Your task to perform on an android device: open app "Skype" (install if not already installed) Image 0: 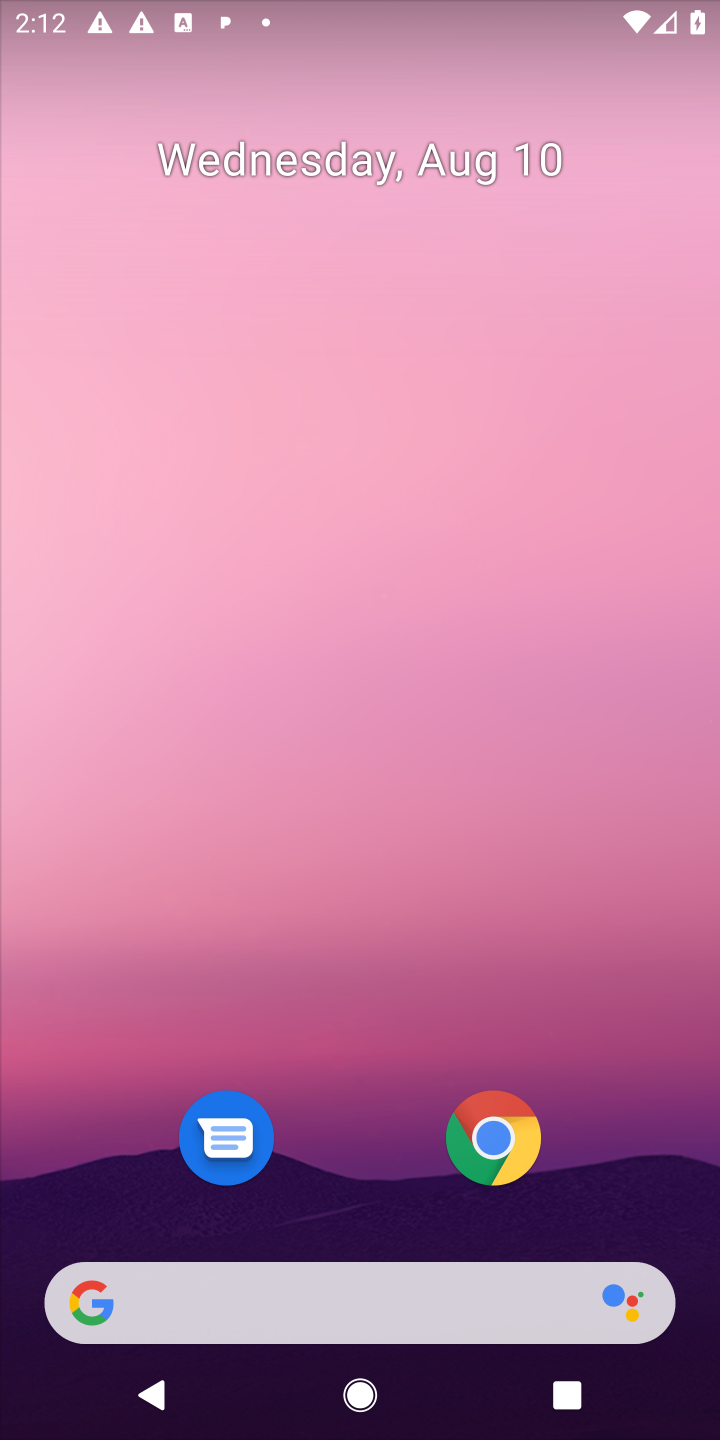
Step 0: press home button
Your task to perform on an android device: open app "Skype" (install if not already installed) Image 1: 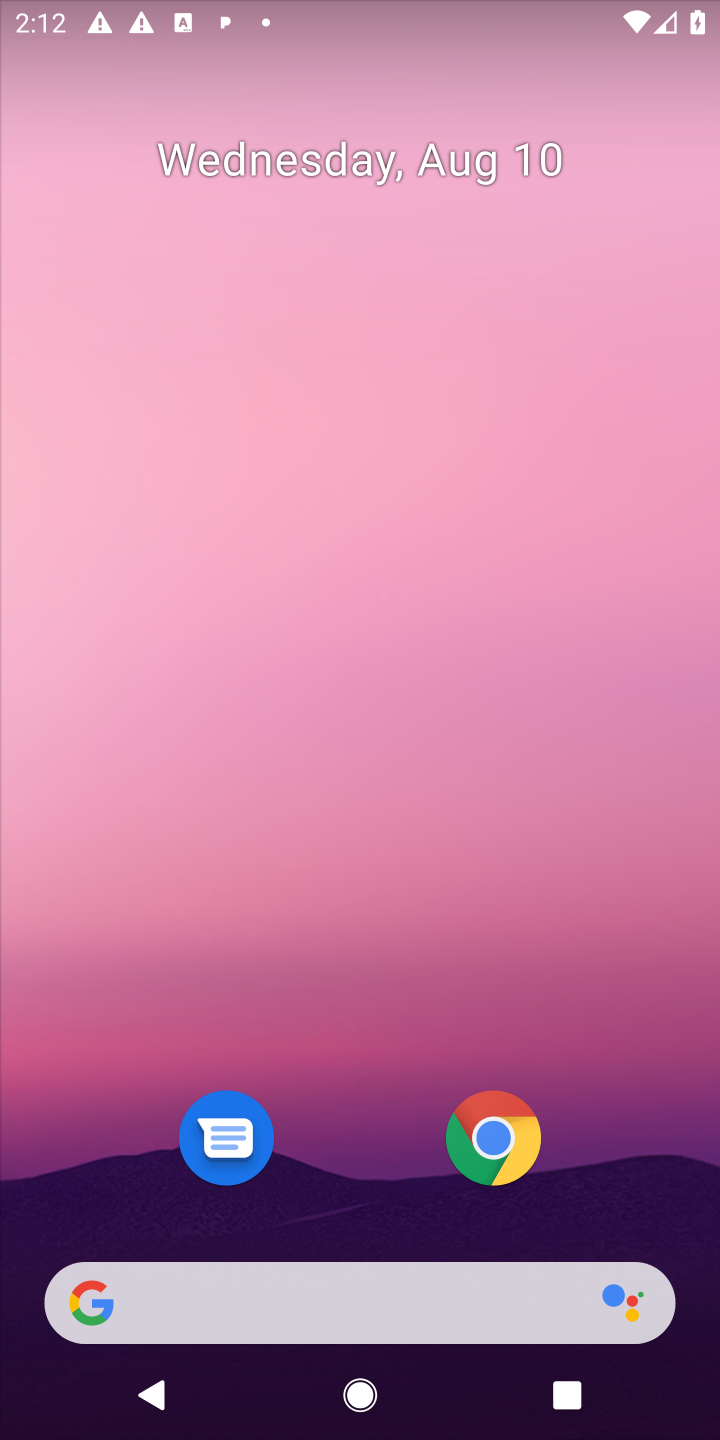
Step 1: drag from (606, 1184) to (645, 91)
Your task to perform on an android device: open app "Skype" (install if not already installed) Image 2: 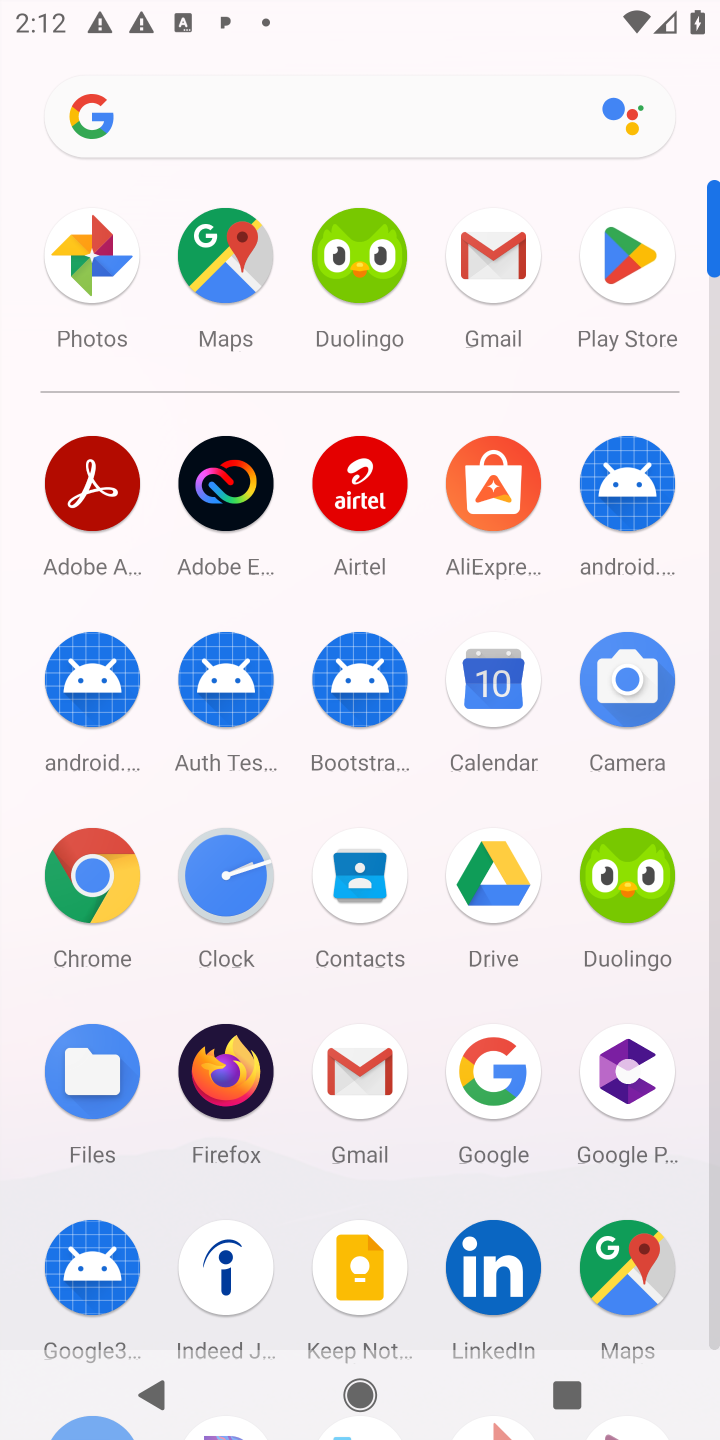
Step 2: click (612, 243)
Your task to perform on an android device: open app "Skype" (install if not already installed) Image 3: 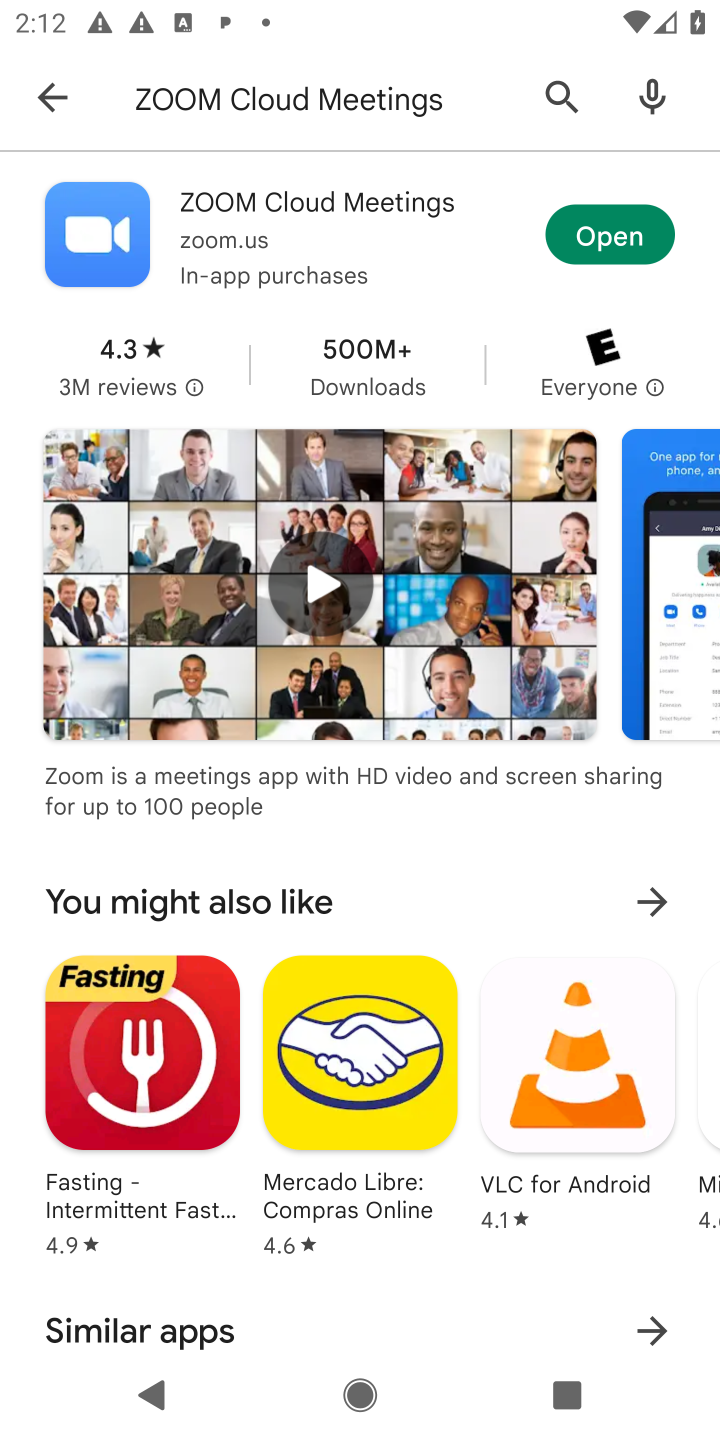
Step 3: click (553, 87)
Your task to perform on an android device: open app "Skype" (install if not already installed) Image 4: 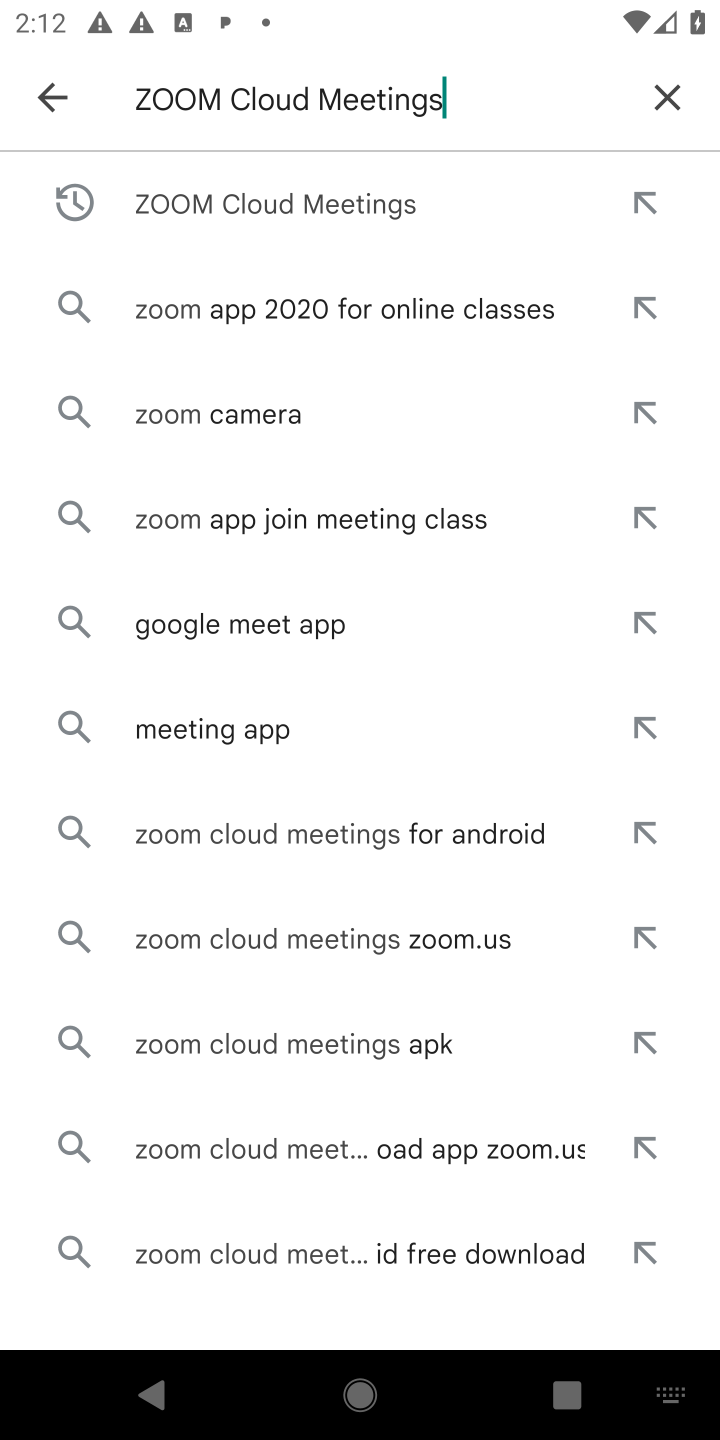
Step 4: click (662, 84)
Your task to perform on an android device: open app "Skype" (install if not already installed) Image 5: 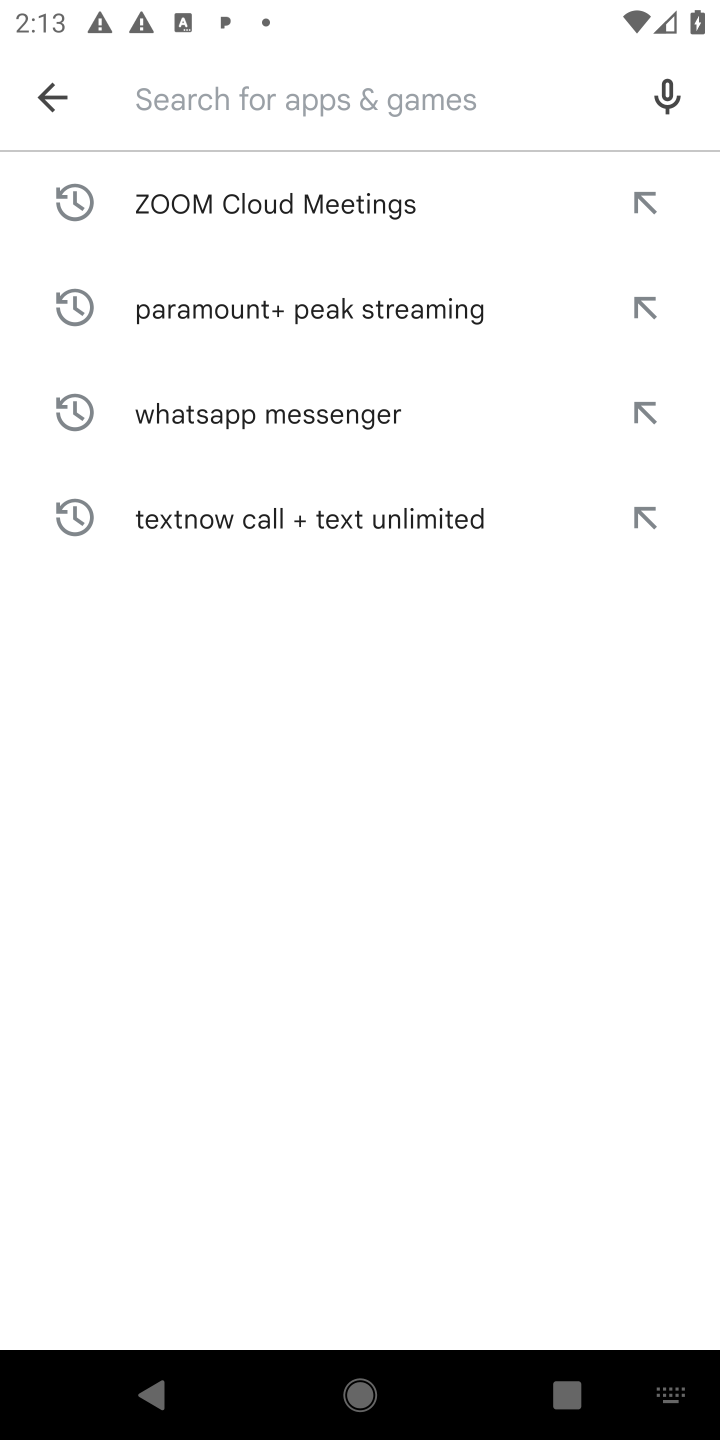
Step 5: type "skype"
Your task to perform on an android device: open app "Skype" (install if not already installed) Image 6: 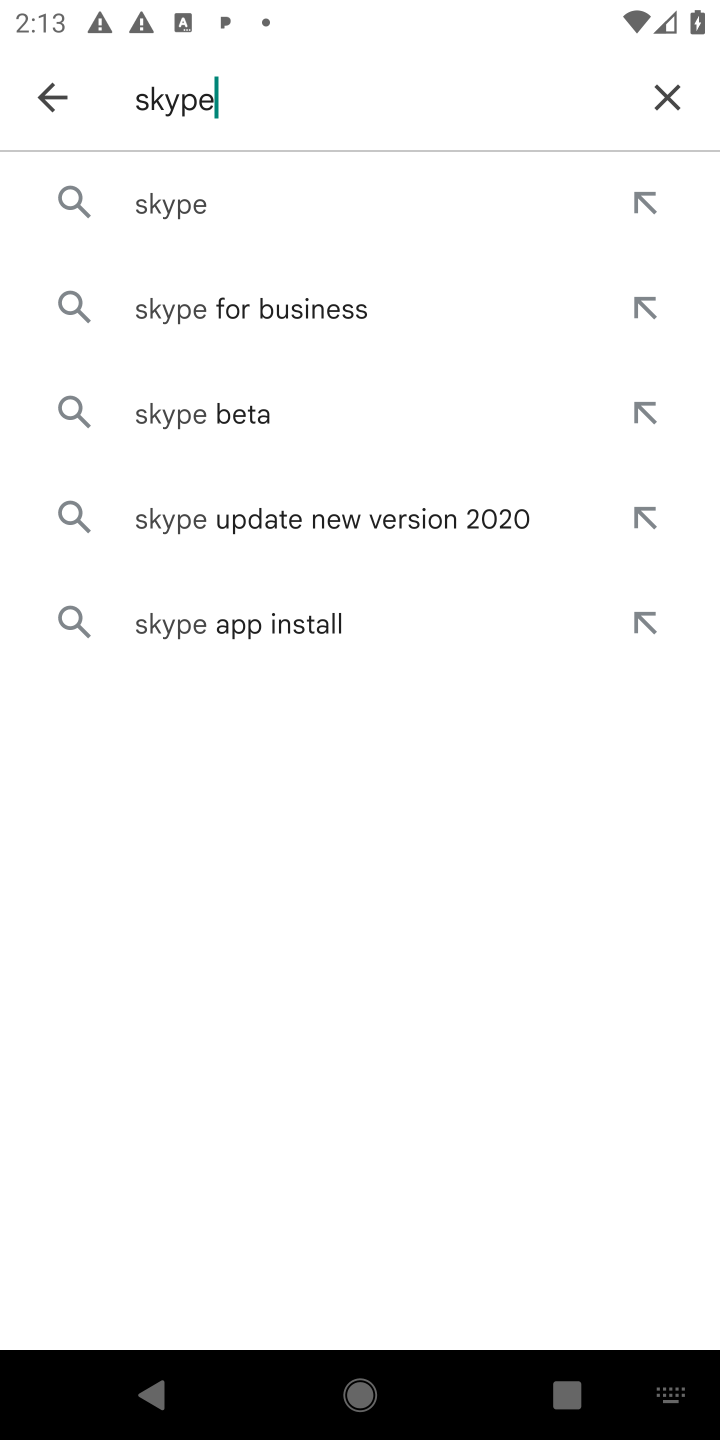
Step 6: press enter
Your task to perform on an android device: open app "Skype" (install if not already installed) Image 7: 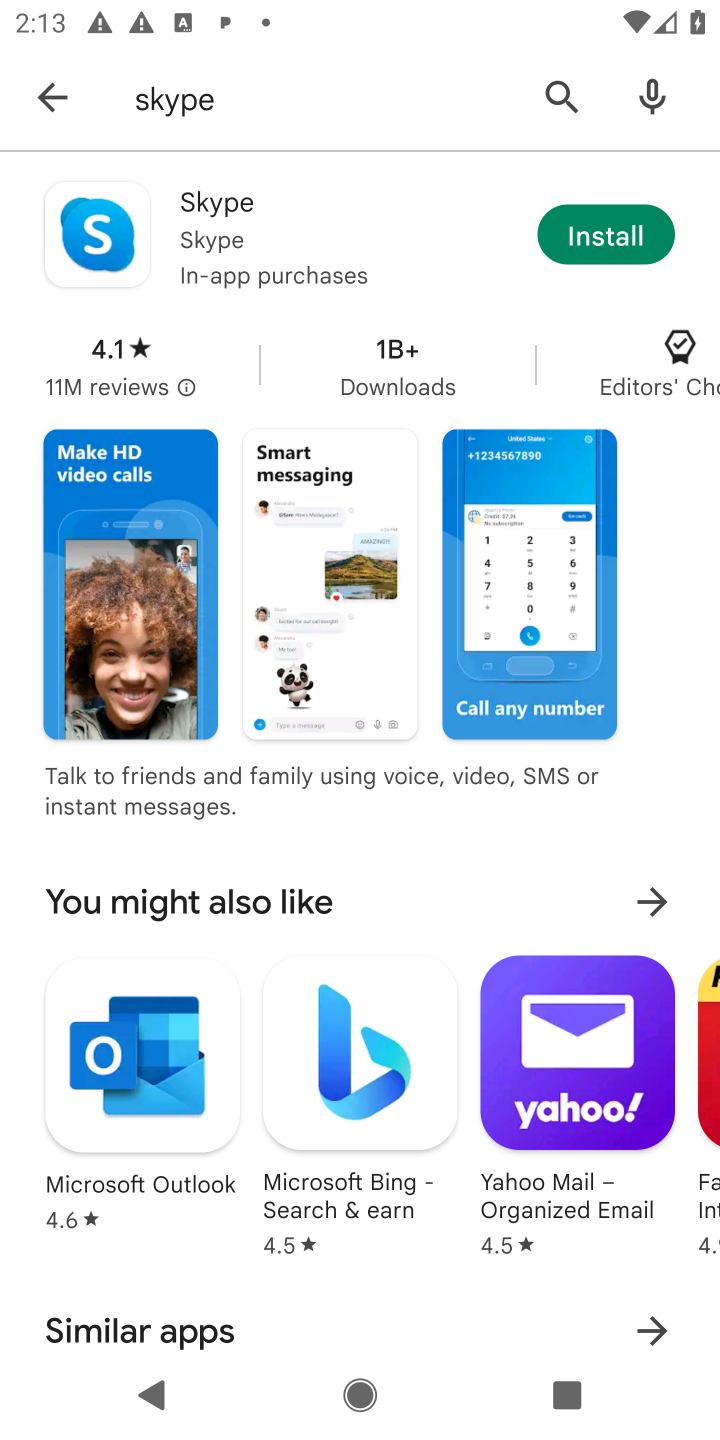
Step 7: click (594, 208)
Your task to perform on an android device: open app "Skype" (install if not already installed) Image 8: 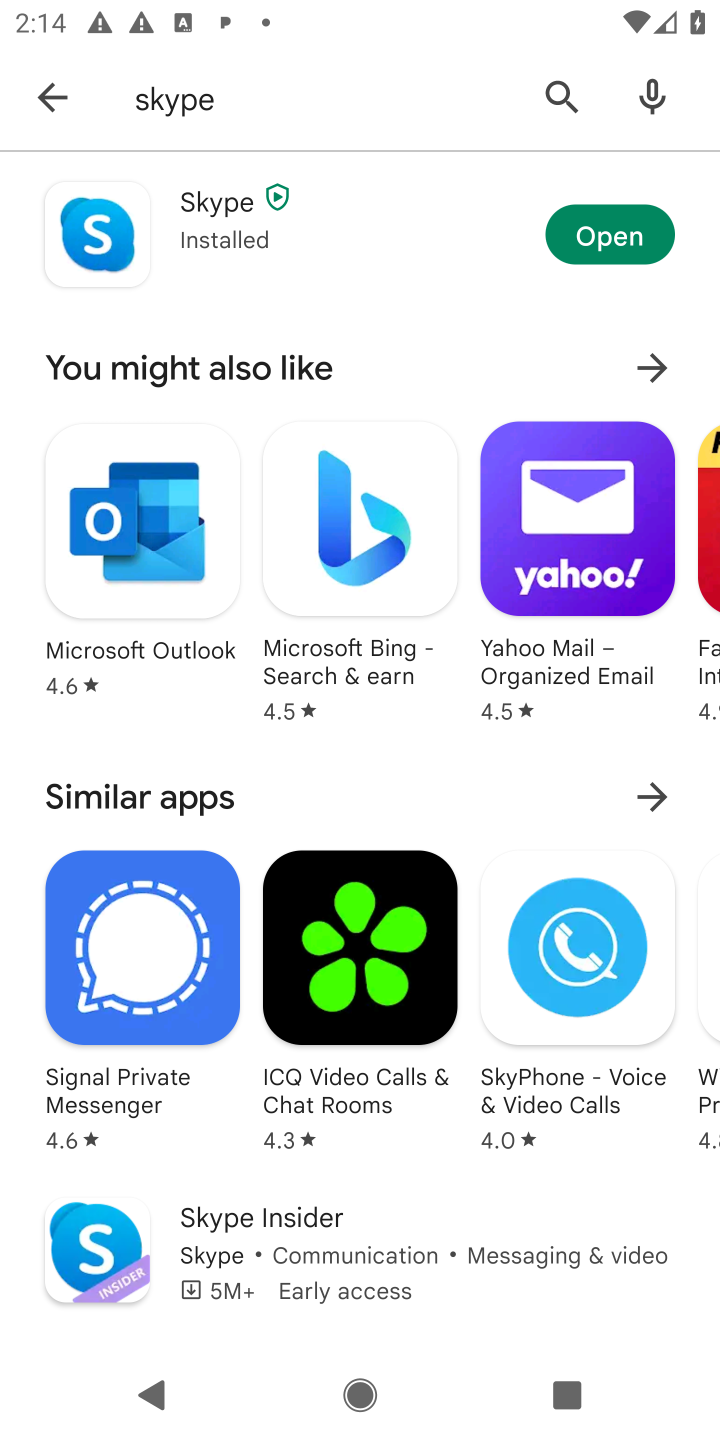
Step 8: click (619, 241)
Your task to perform on an android device: open app "Skype" (install if not already installed) Image 9: 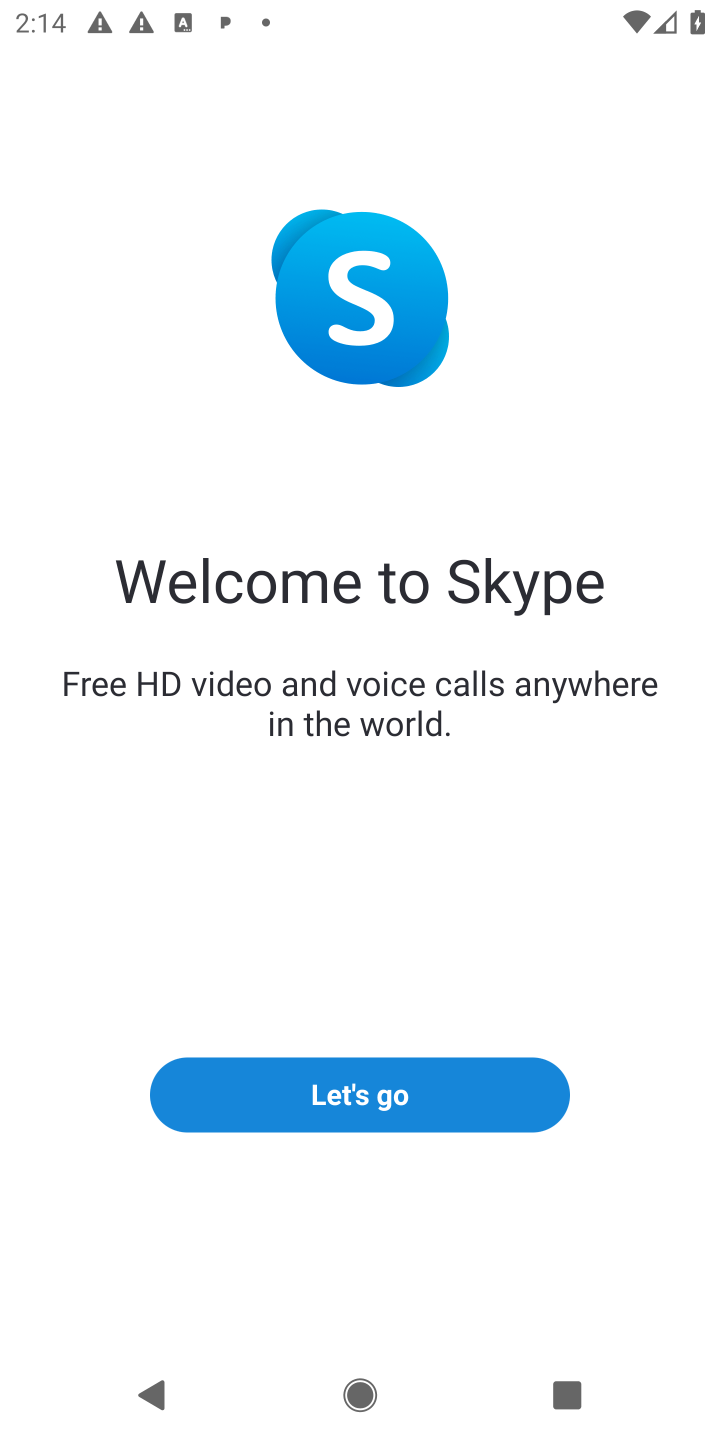
Step 9: task complete